Your task to perform on an android device: toggle airplane mode Image 0: 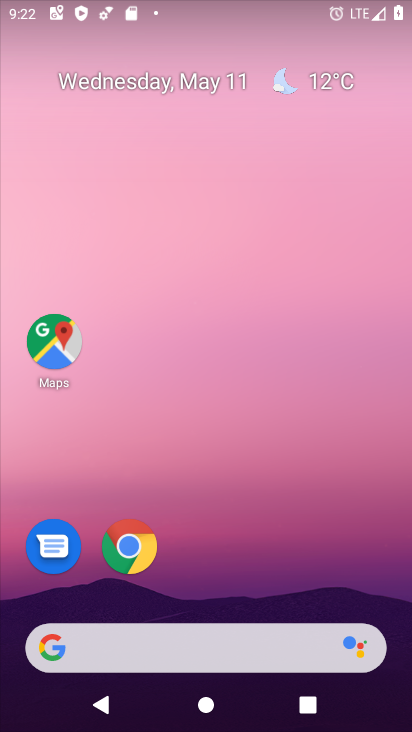
Step 0: drag from (398, 629) to (307, 83)
Your task to perform on an android device: toggle airplane mode Image 1: 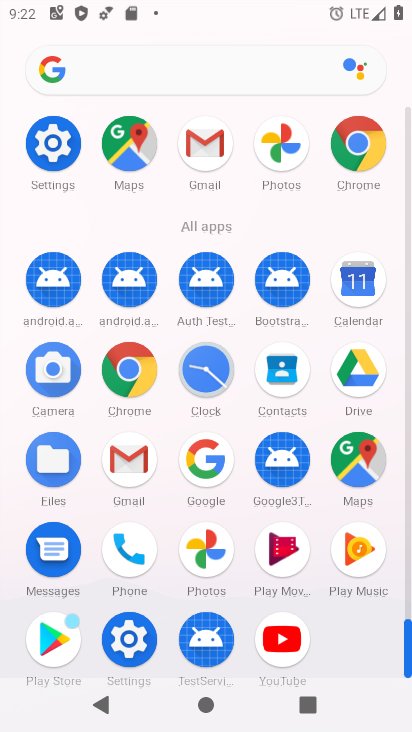
Step 1: click (129, 641)
Your task to perform on an android device: toggle airplane mode Image 2: 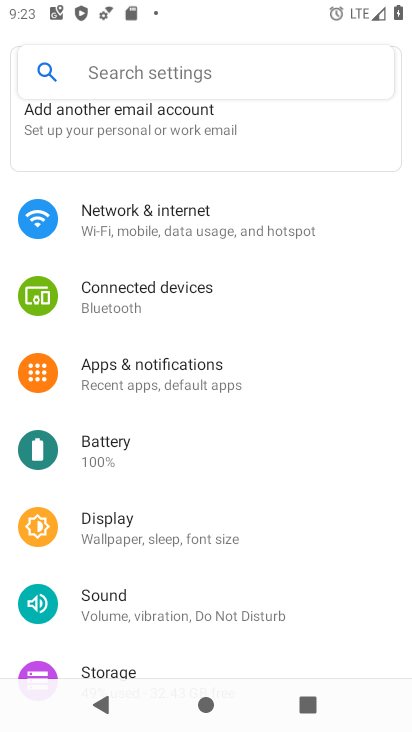
Step 2: click (113, 211)
Your task to perform on an android device: toggle airplane mode Image 3: 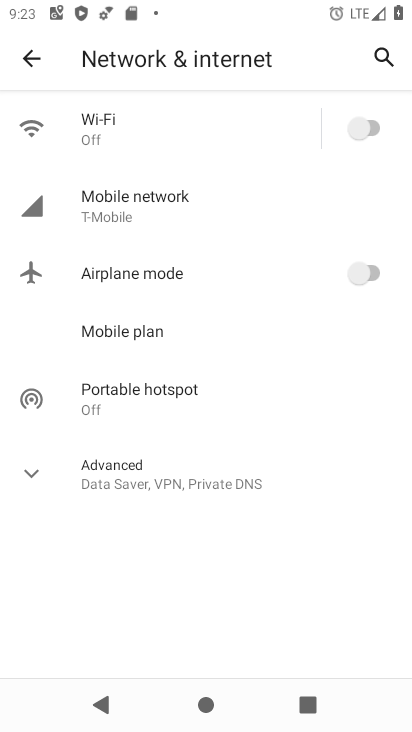
Step 3: click (374, 272)
Your task to perform on an android device: toggle airplane mode Image 4: 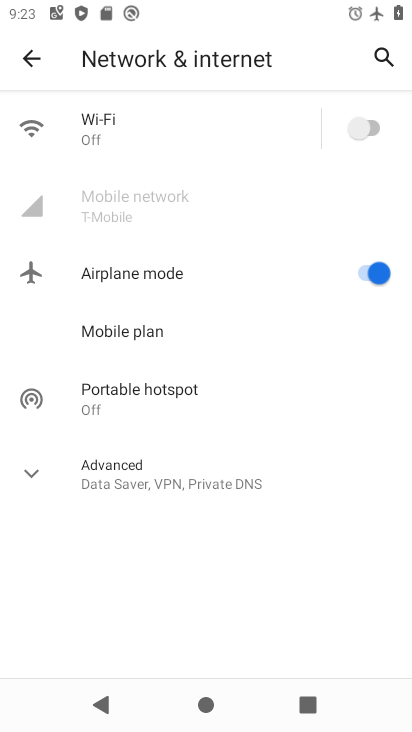
Step 4: task complete